Your task to perform on an android device: turn on sleep mode Image 0: 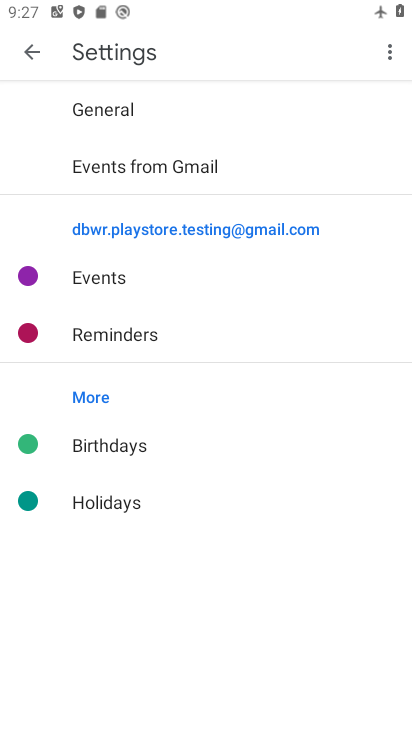
Step 0: press home button
Your task to perform on an android device: turn on sleep mode Image 1: 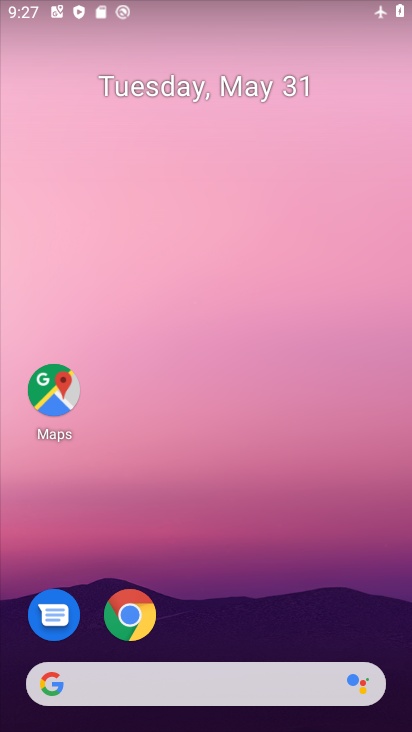
Step 1: drag from (359, 627) to (316, 118)
Your task to perform on an android device: turn on sleep mode Image 2: 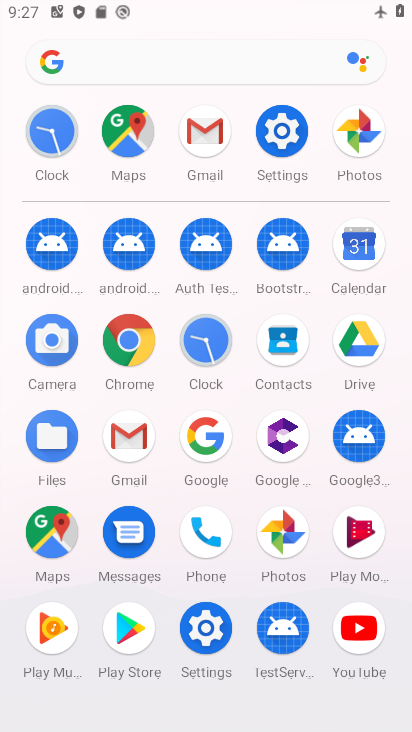
Step 2: click (209, 631)
Your task to perform on an android device: turn on sleep mode Image 3: 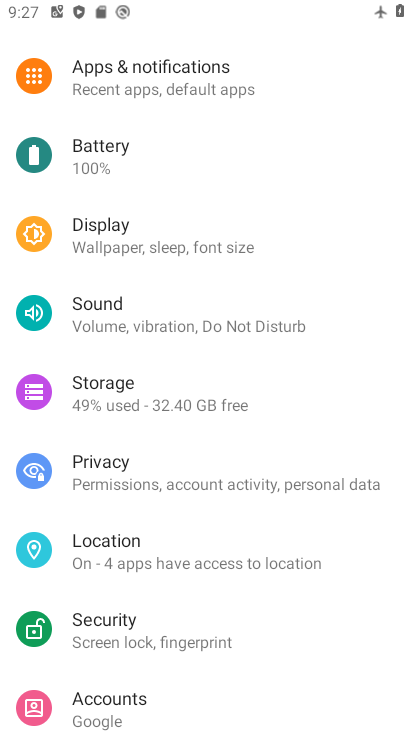
Step 3: click (134, 232)
Your task to perform on an android device: turn on sleep mode Image 4: 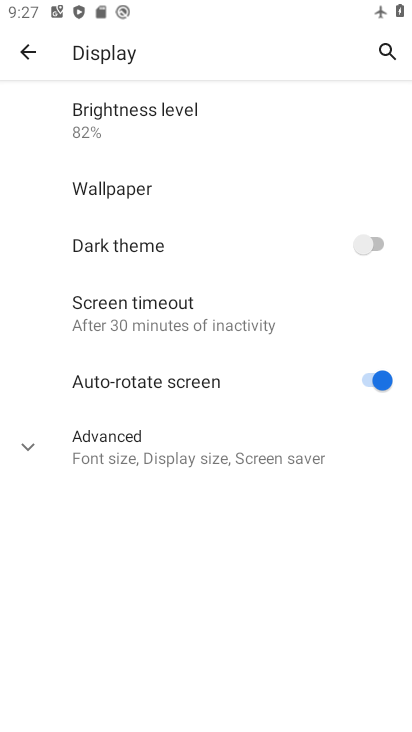
Step 4: click (20, 446)
Your task to perform on an android device: turn on sleep mode Image 5: 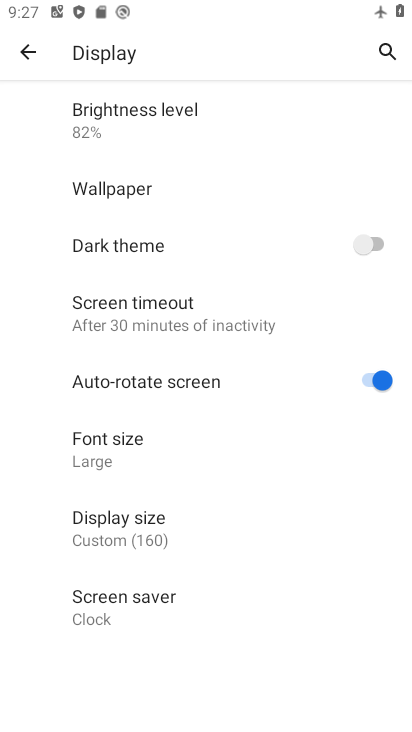
Step 5: task complete